Your task to perform on an android device: Open calendar and show me the third week of next month Image 0: 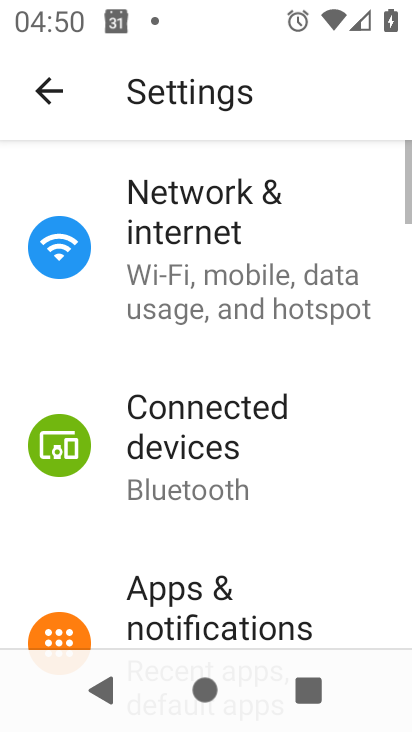
Step 0: drag from (261, 579) to (248, 93)
Your task to perform on an android device: Open calendar and show me the third week of next month Image 1: 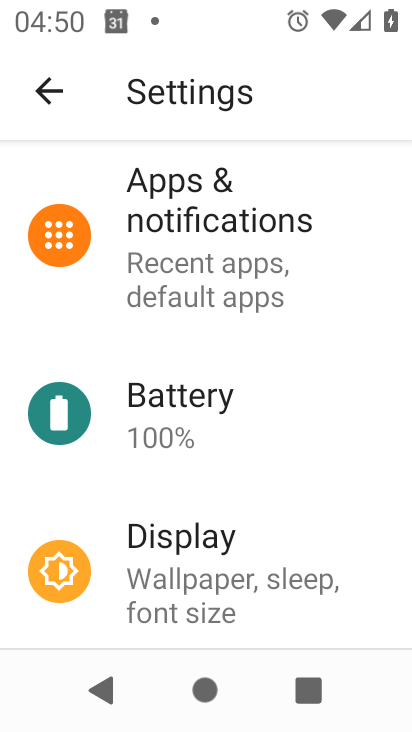
Step 1: press home button
Your task to perform on an android device: Open calendar and show me the third week of next month Image 2: 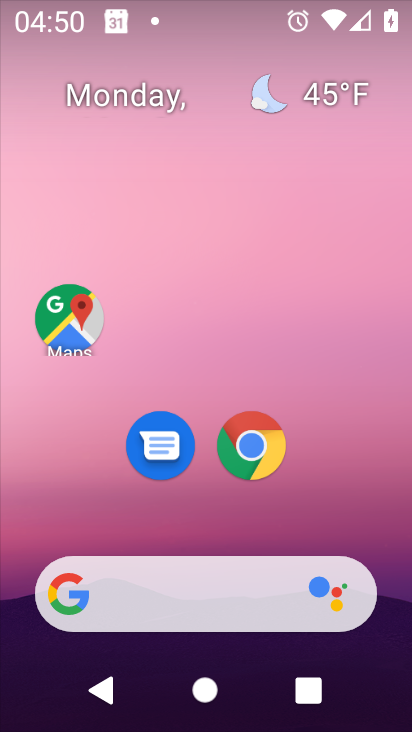
Step 2: drag from (200, 532) to (201, 47)
Your task to perform on an android device: Open calendar and show me the third week of next month Image 3: 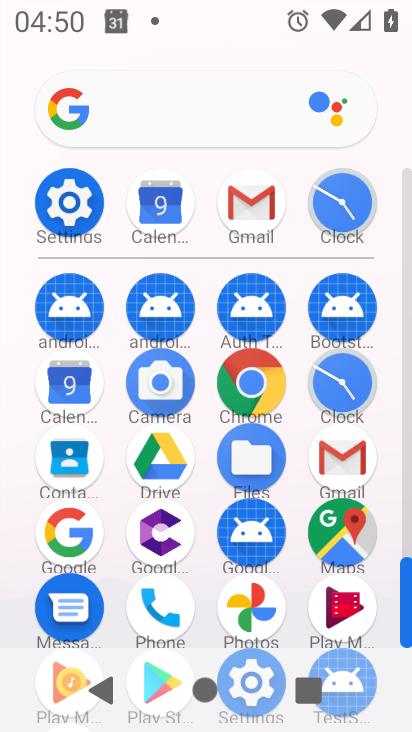
Step 3: click (74, 374)
Your task to perform on an android device: Open calendar and show me the third week of next month Image 4: 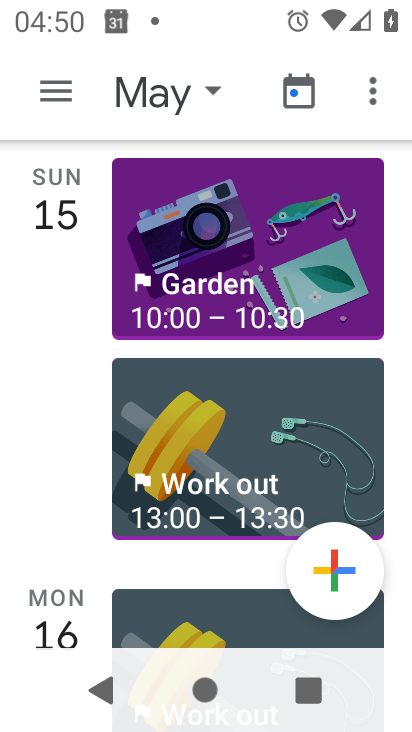
Step 4: click (181, 108)
Your task to perform on an android device: Open calendar and show me the third week of next month Image 5: 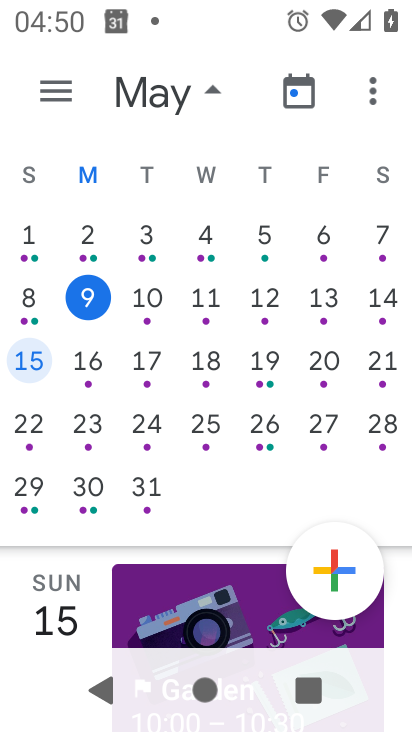
Step 5: drag from (372, 257) to (0, 329)
Your task to perform on an android device: Open calendar and show me the third week of next month Image 6: 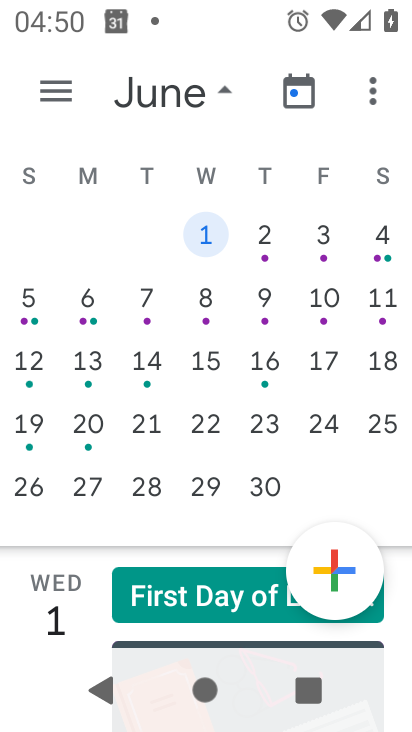
Step 6: click (48, 361)
Your task to perform on an android device: Open calendar and show me the third week of next month Image 7: 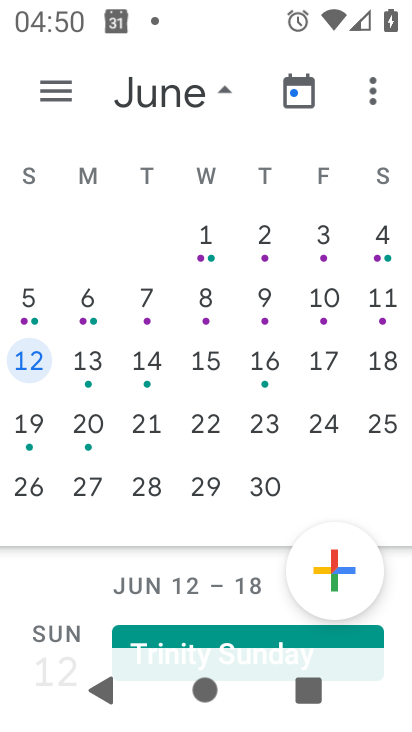
Step 7: task complete